Your task to perform on an android device: Search for sushi restaurants on Maps Image 0: 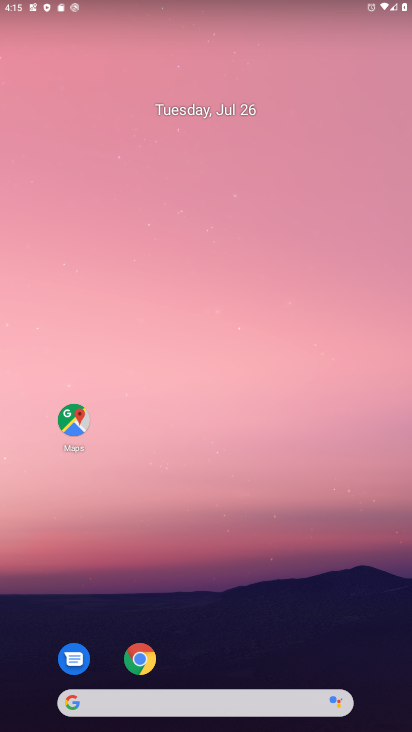
Step 0: press home button
Your task to perform on an android device: Search for sushi restaurants on Maps Image 1: 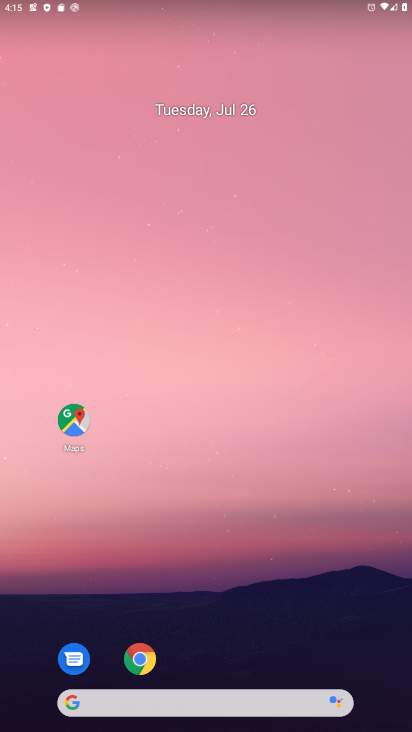
Step 1: drag from (235, 655) to (217, 5)
Your task to perform on an android device: Search for sushi restaurants on Maps Image 2: 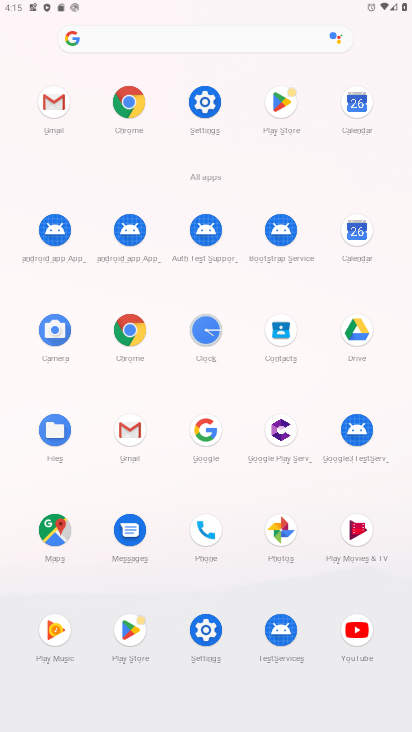
Step 2: click (51, 528)
Your task to perform on an android device: Search for sushi restaurants on Maps Image 3: 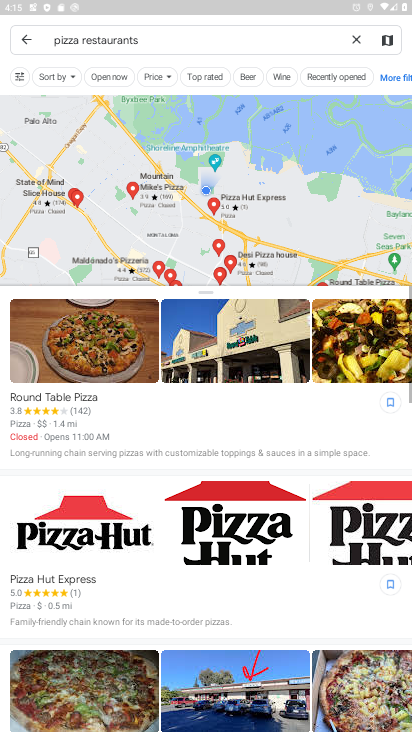
Step 3: click (24, 32)
Your task to perform on an android device: Search for sushi restaurants on Maps Image 4: 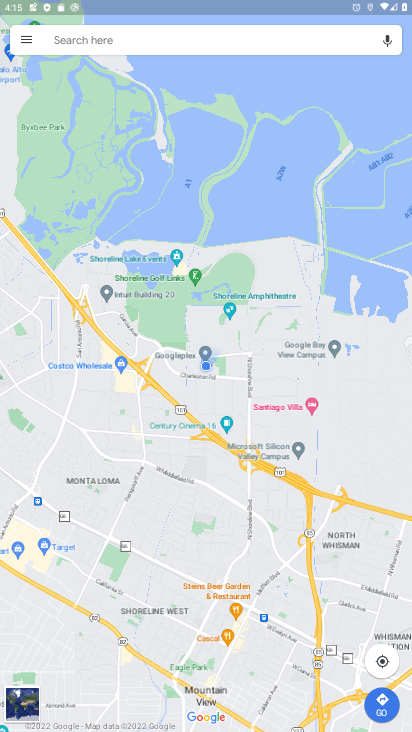
Step 4: click (128, 41)
Your task to perform on an android device: Search for sushi restaurants on Maps Image 5: 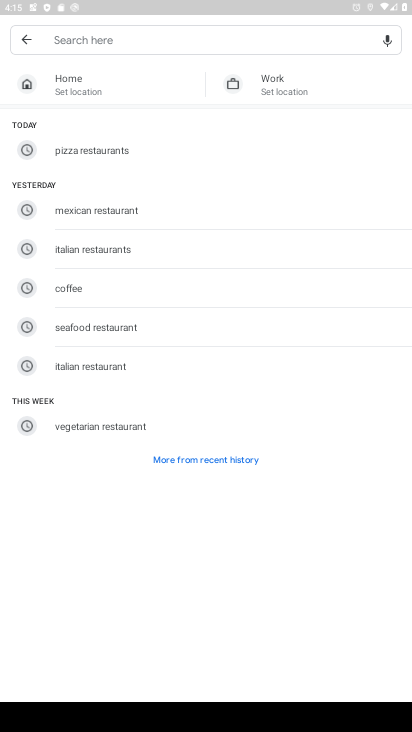
Step 5: press enter
Your task to perform on an android device: Search for sushi restaurants on Maps Image 6: 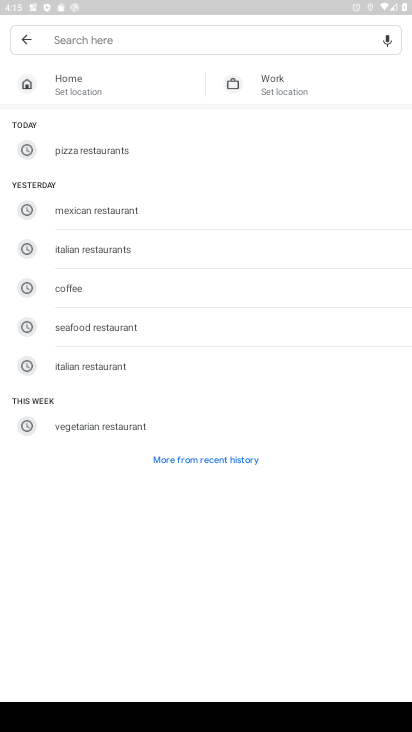
Step 6: type "sushi restaurants"
Your task to perform on an android device: Search for sushi restaurants on Maps Image 7: 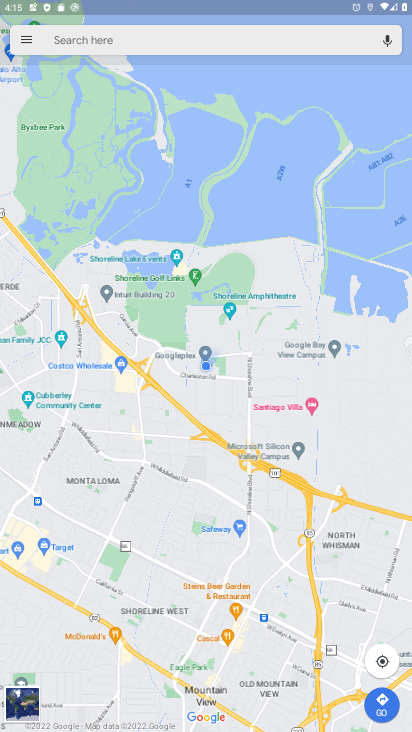
Step 7: press enter
Your task to perform on an android device: Search for sushi restaurants on Maps Image 8: 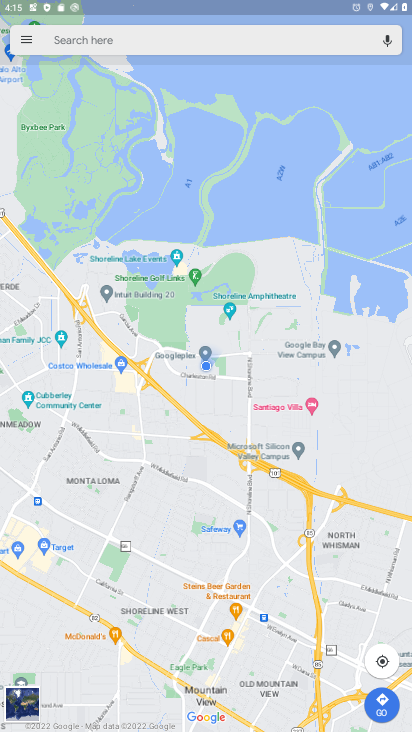
Step 8: click (120, 32)
Your task to perform on an android device: Search for sushi restaurants on Maps Image 9: 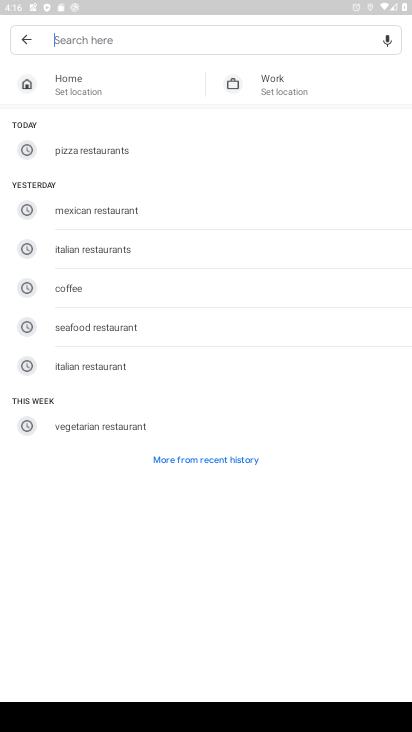
Step 9: type "sushi restaurants"
Your task to perform on an android device: Search for sushi restaurants on Maps Image 10: 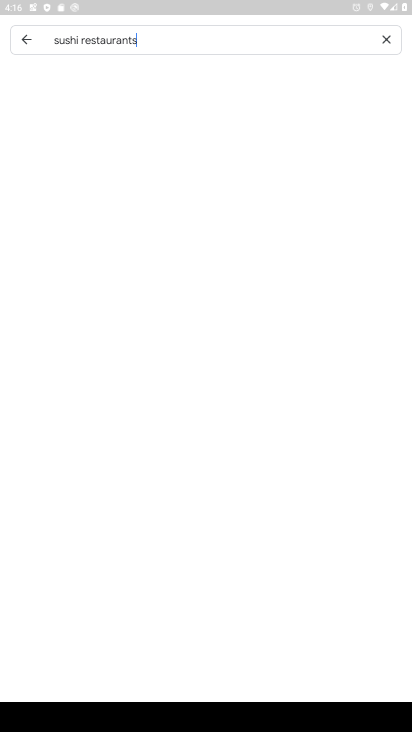
Step 10: press enter
Your task to perform on an android device: Search for sushi restaurants on Maps Image 11: 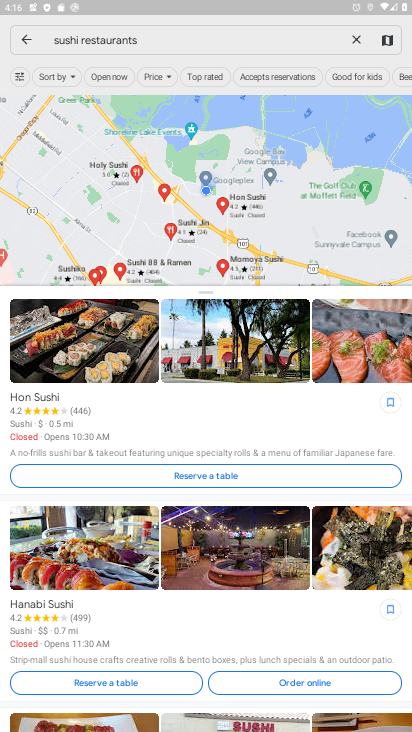
Step 11: task complete